Your task to perform on an android device: Open maps Image 0: 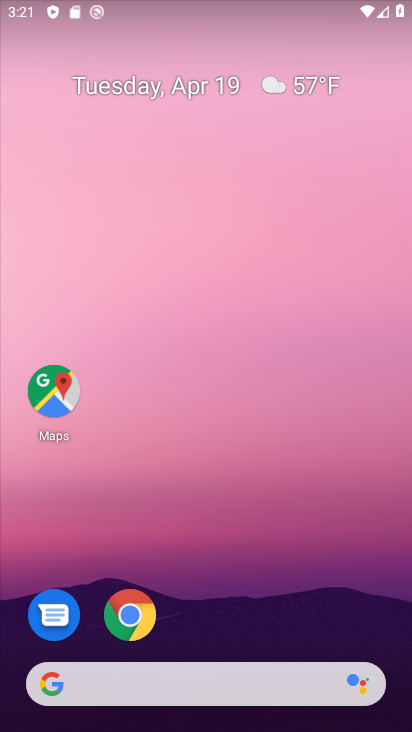
Step 0: click (49, 400)
Your task to perform on an android device: Open maps Image 1: 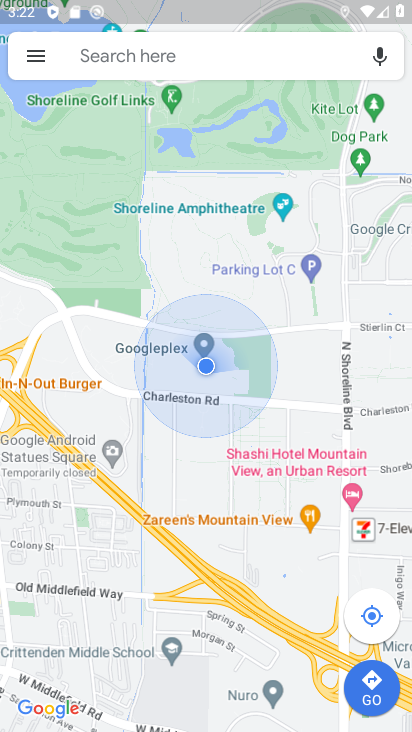
Step 1: task complete